Your task to perform on an android device: Show me popular videos on Youtube Image 0: 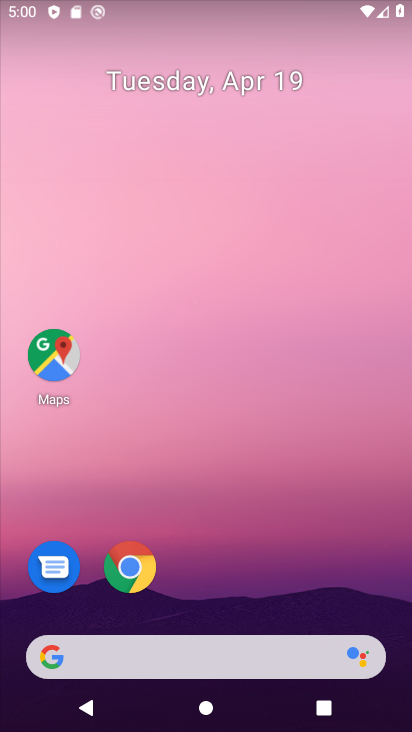
Step 0: drag from (290, 506) to (303, 5)
Your task to perform on an android device: Show me popular videos on Youtube Image 1: 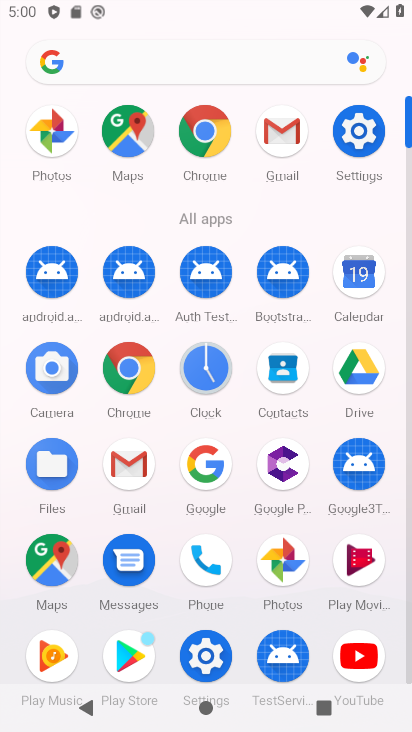
Step 1: click (349, 663)
Your task to perform on an android device: Show me popular videos on Youtube Image 2: 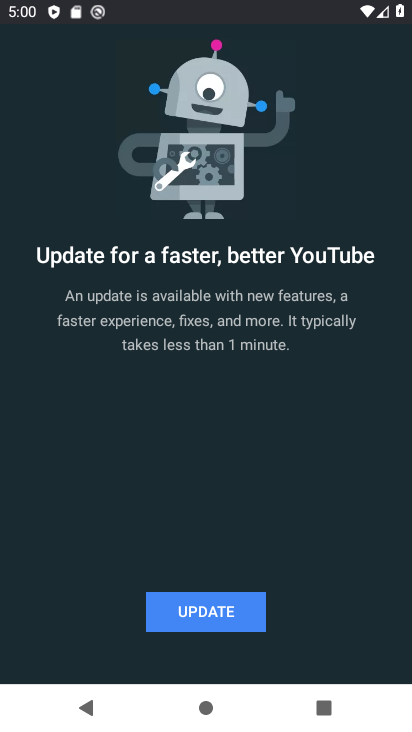
Step 2: click (222, 616)
Your task to perform on an android device: Show me popular videos on Youtube Image 3: 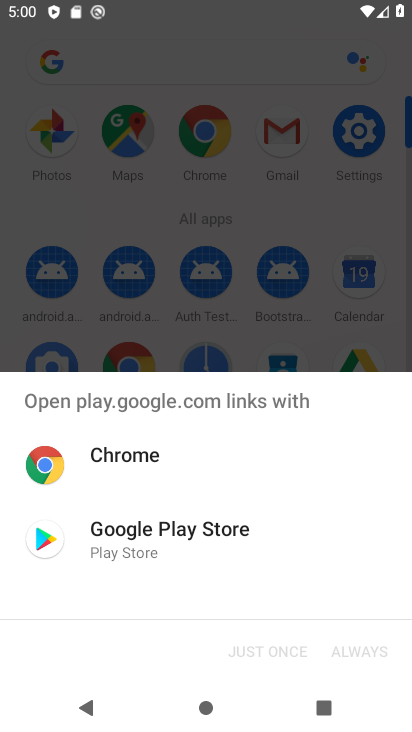
Step 3: click (109, 545)
Your task to perform on an android device: Show me popular videos on Youtube Image 4: 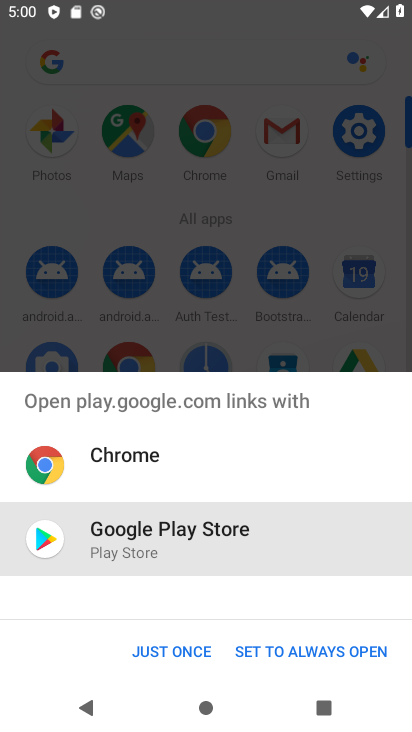
Step 4: click (187, 647)
Your task to perform on an android device: Show me popular videos on Youtube Image 5: 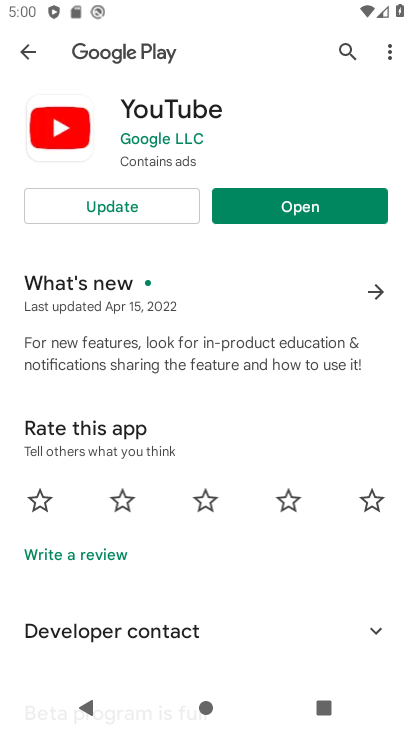
Step 5: click (104, 210)
Your task to perform on an android device: Show me popular videos on Youtube Image 6: 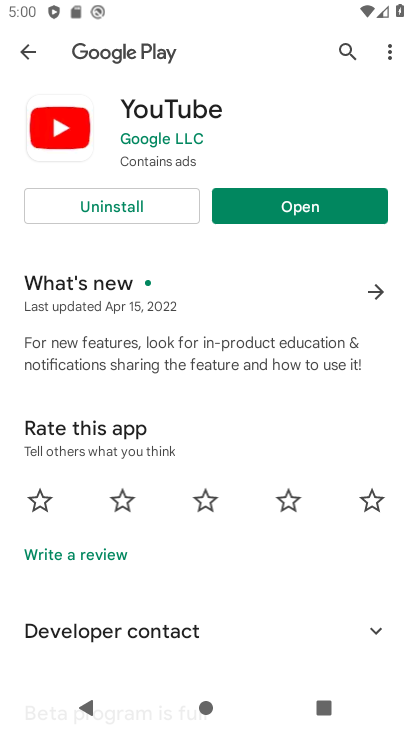
Step 6: click (348, 202)
Your task to perform on an android device: Show me popular videos on Youtube Image 7: 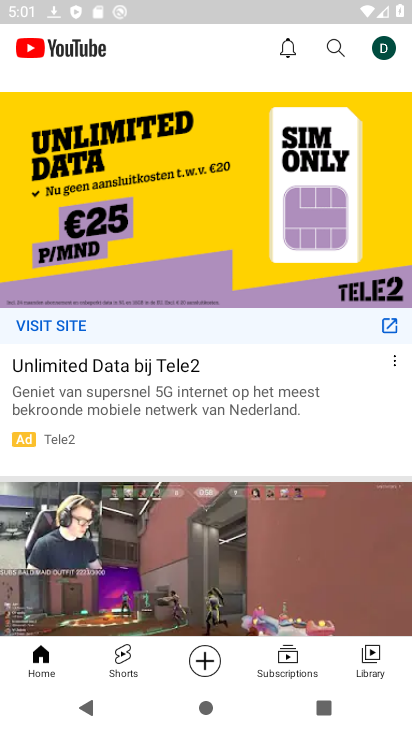
Step 7: click (333, 38)
Your task to perform on an android device: Show me popular videos on Youtube Image 8: 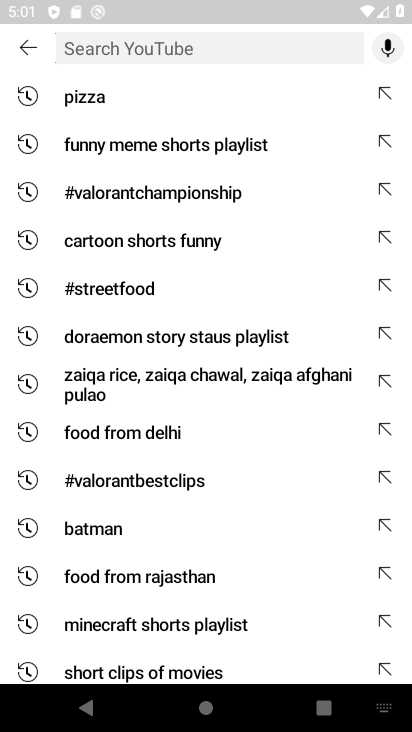
Step 8: type "popular videos"
Your task to perform on an android device: Show me popular videos on Youtube Image 9: 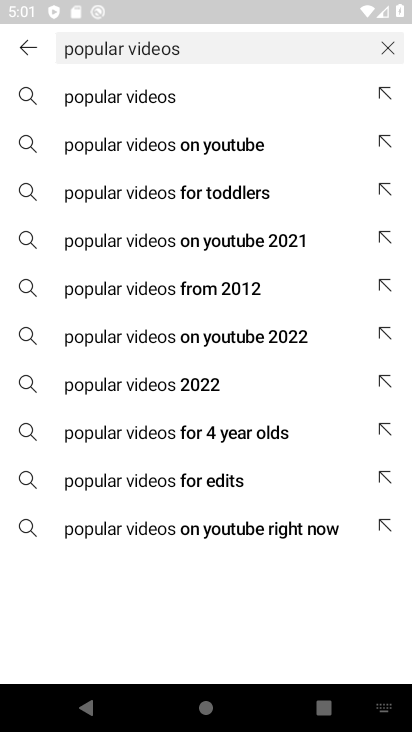
Step 9: click (135, 102)
Your task to perform on an android device: Show me popular videos on Youtube Image 10: 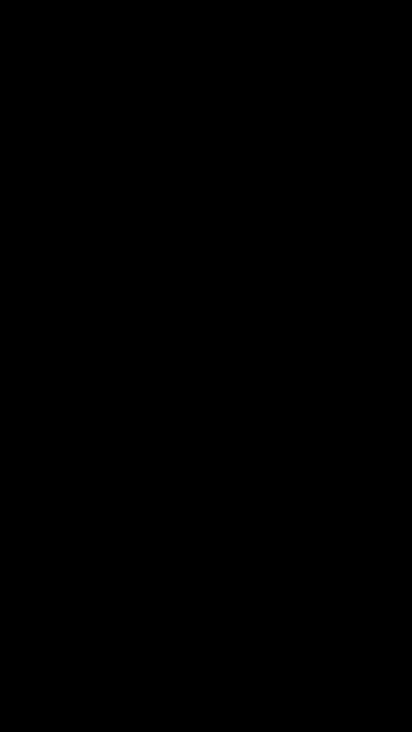
Step 10: task complete